Your task to perform on an android device: Open Google Chrome and open the bookmarks view Image 0: 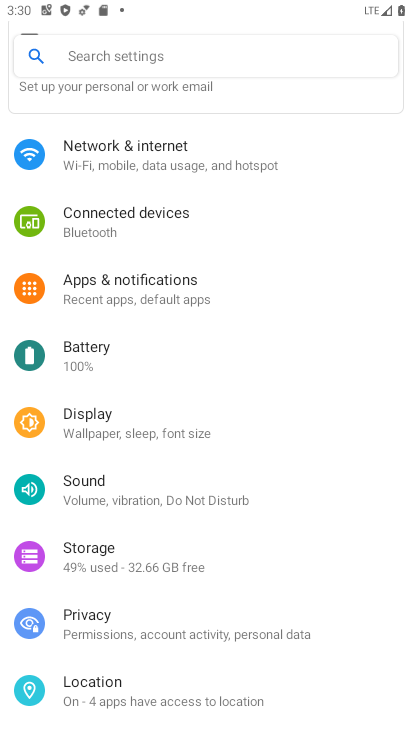
Step 0: press home button
Your task to perform on an android device: Open Google Chrome and open the bookmarks view Image 1: 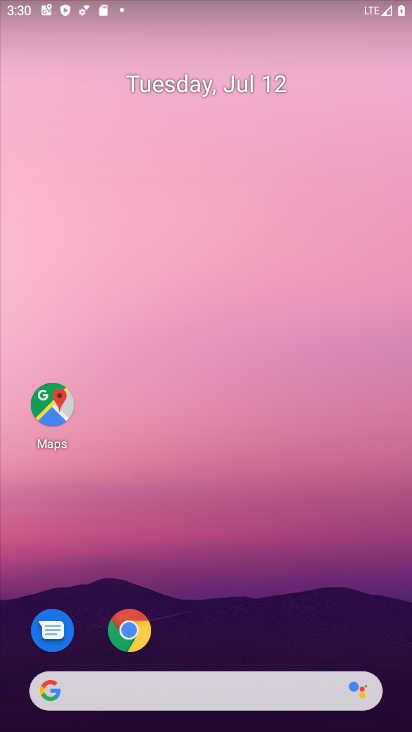
Step 1: drag from (299, 631) to (379, 0)
Your task to perform on an android device: Open Google Chrome and open the bookmarks view Image 2: 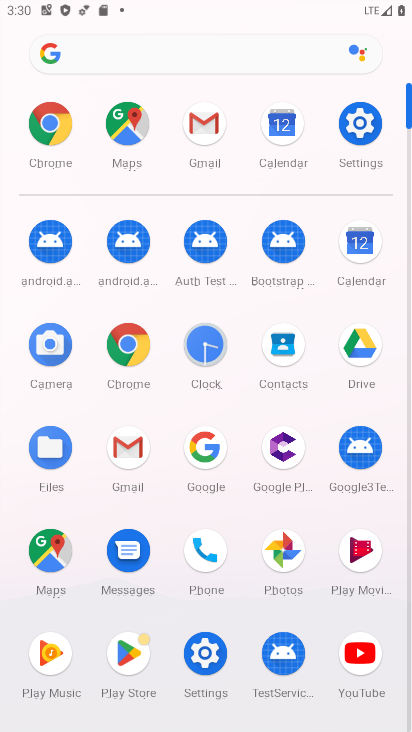
Step 2: click (128, 341)
Your task to perform on an android device: Open Google Chrome and open the bookmarks view Image 3: 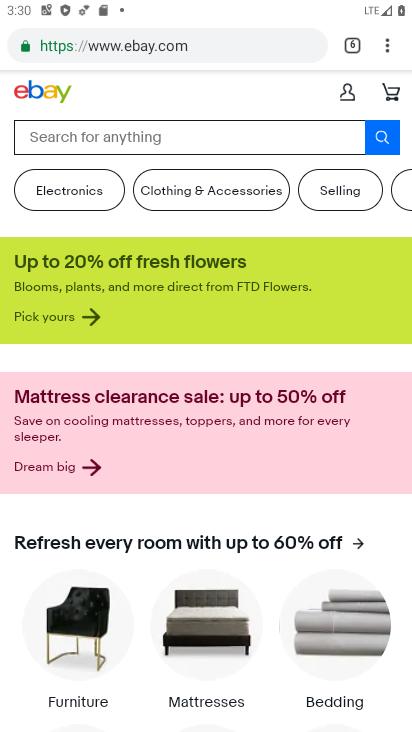
Step 3: task complete